Your task to perform on an android device: Go to Amazon Image 0: 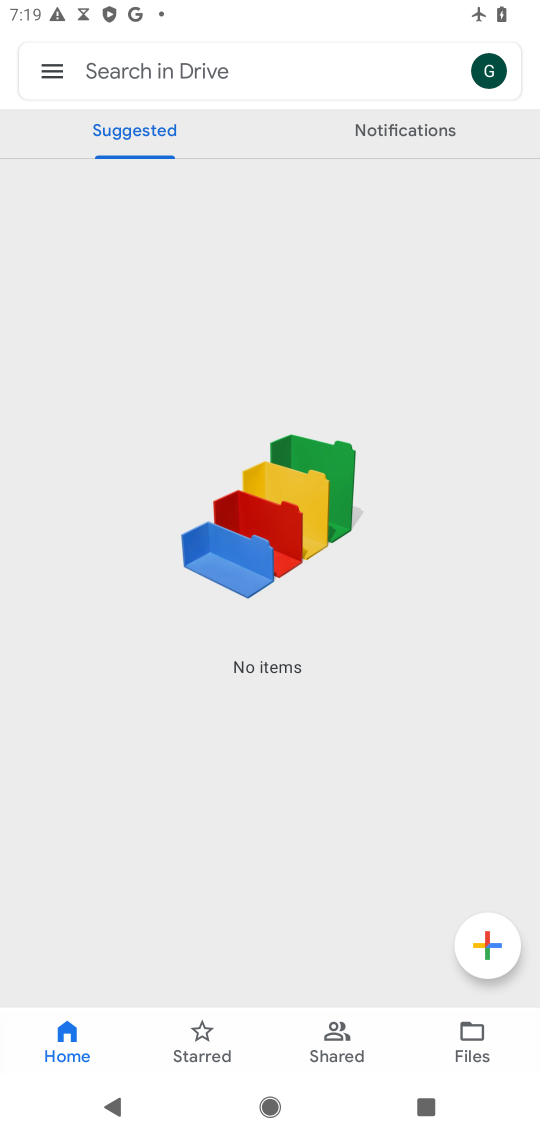
Step 0: press home button
Your task to perform on an android device: Go to Amazon Image 1: 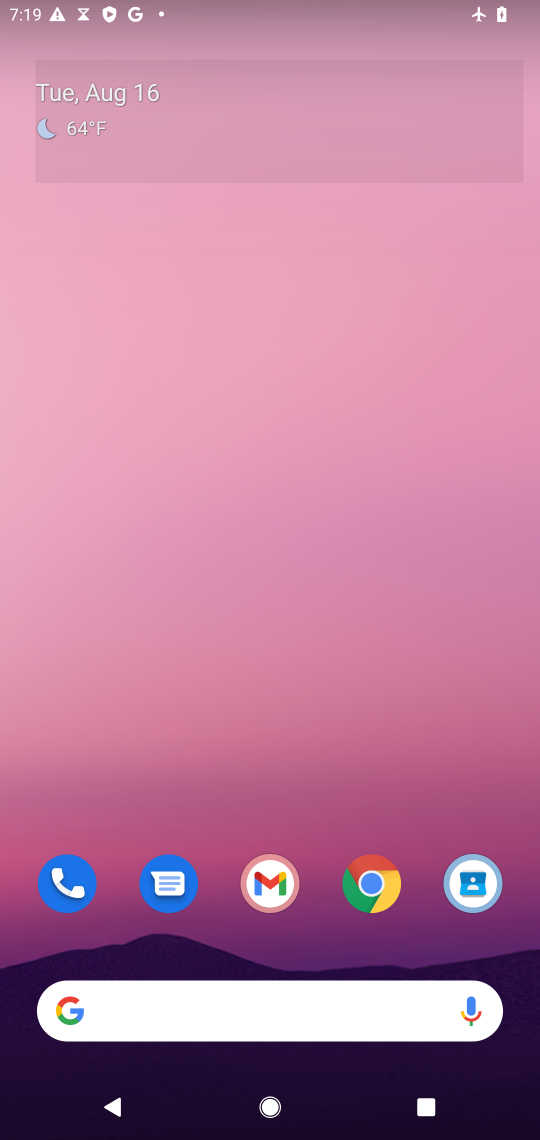
Step 1: drag from (243, 1014) to (264, 366)
Your task to perform on an android device: Go to Amazon Image 2: 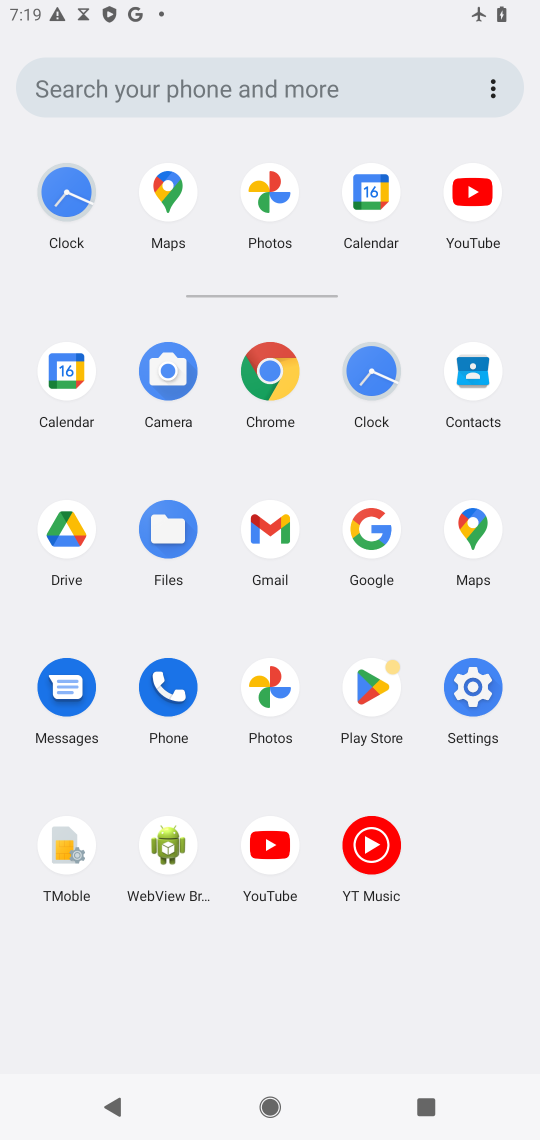
Step 2: click (273, 377)
Your task to perform on an android device: Go to Amazon Image 3: 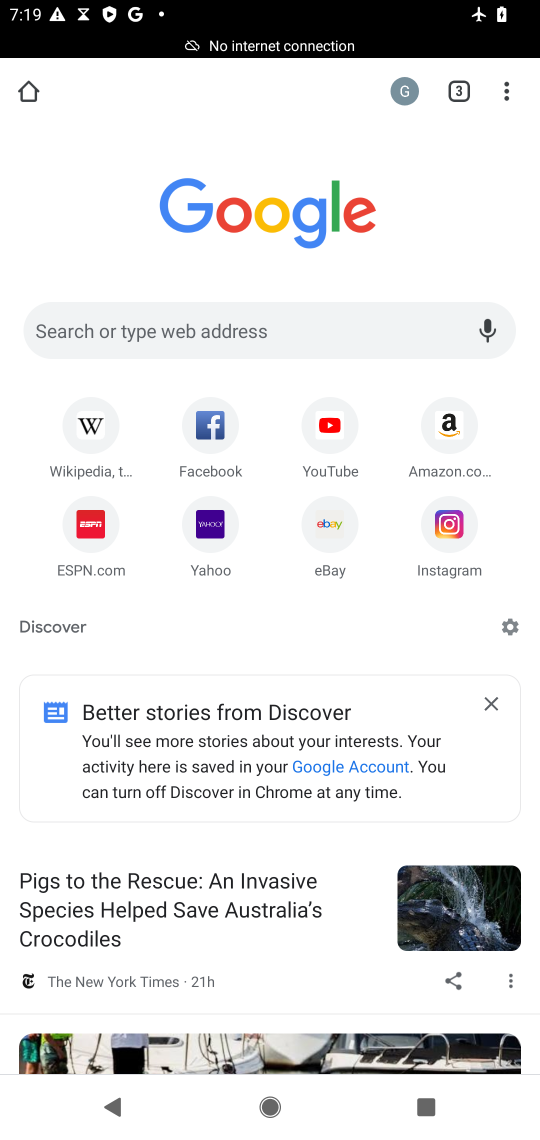
Step 3: click (459, 440)
Your task to perform on an android device: Go to Amazon Image 4: 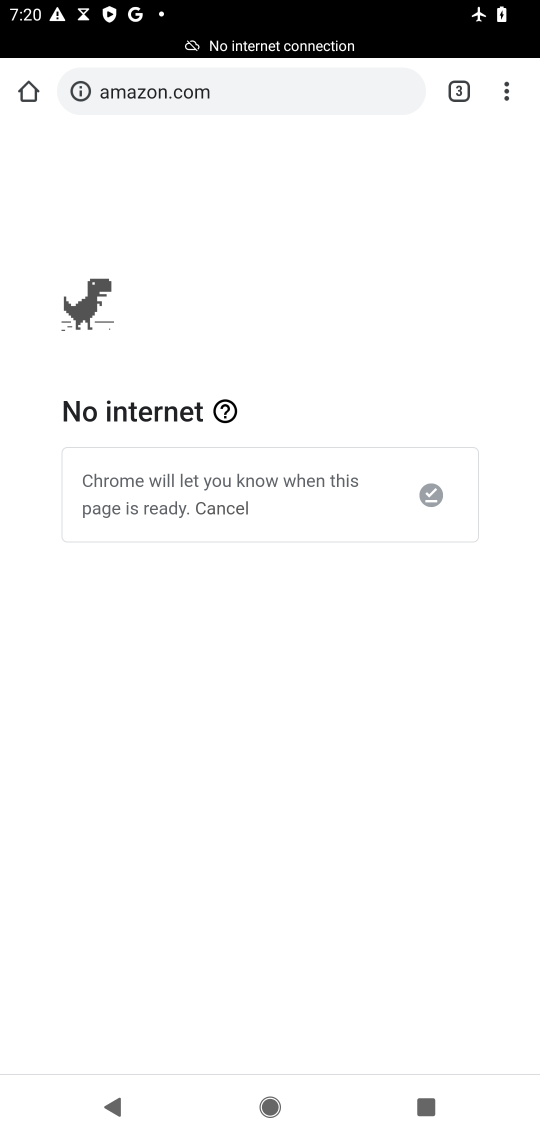
Step 4: task complete